Your task to perform on an android device: snooze an email in the gmail app Image 0: 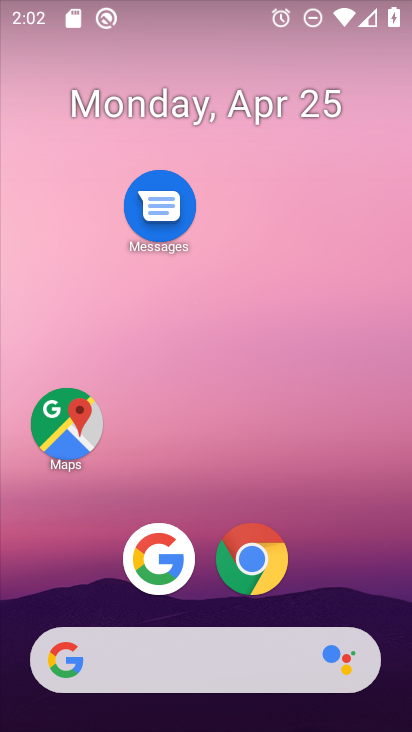
Step 0: drag from (215, 504) to (193, 68)
Your task to perform on an android device: snooze an email in the gmail app Image 1: 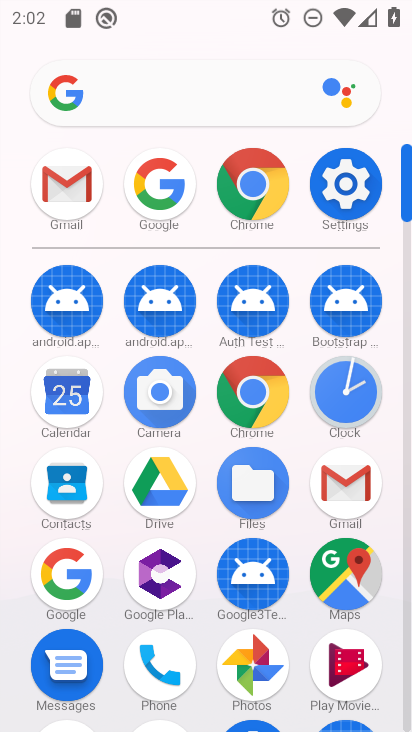
Step 1: click (71, 184)
Your task to perform on an android device: snooze an email in the gmail app Image 2: 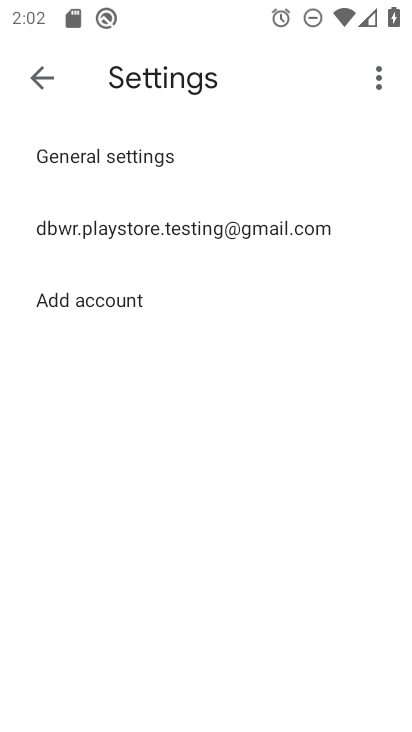
Step 2: press back button
Your task to perform on an android device: snooze an email in the gmail app Image 3: 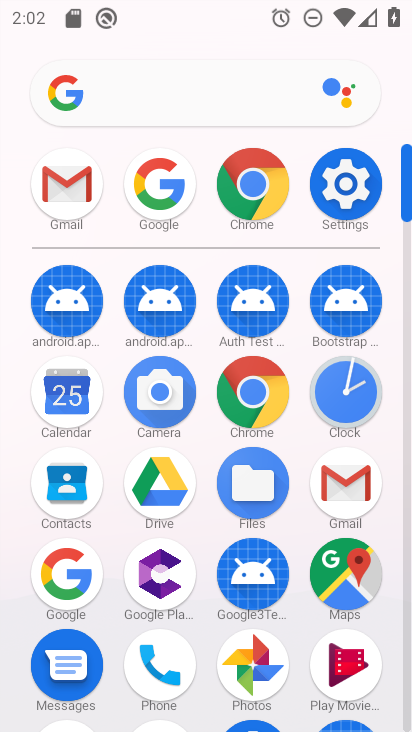
Step 3: click (59, 184)
Your task to perform on an android device: snooze an email in the gmail app Image 4: 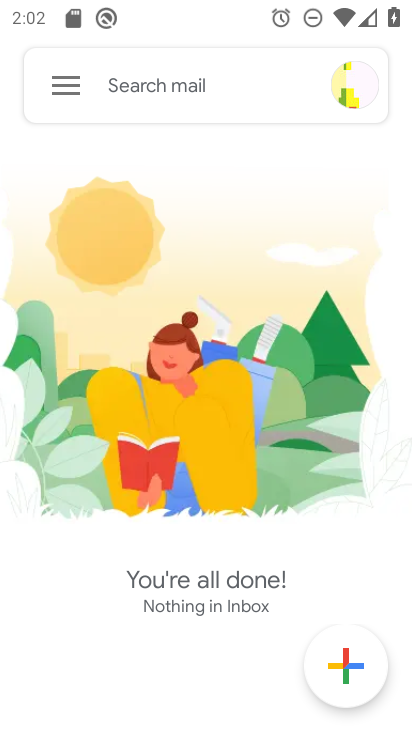
Step 4: click (62, 93)
Your task to perform on an android device: snooze an email in the gmail app Image 5: 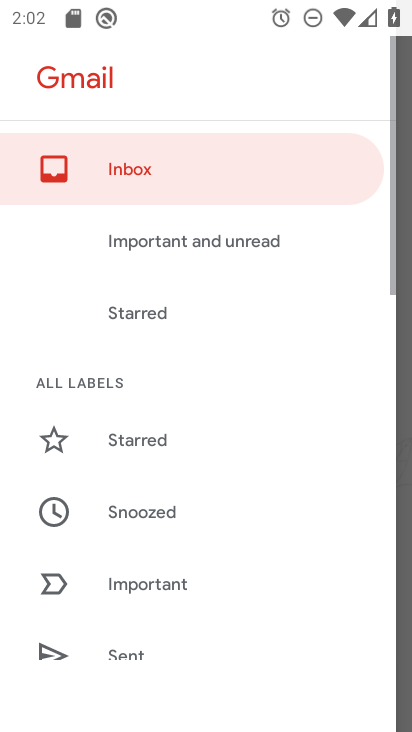
Step 5: drag from (197, 580) to (215, 192)
Your task to perform on an android device: snooze an email in the gmail app Image 6: 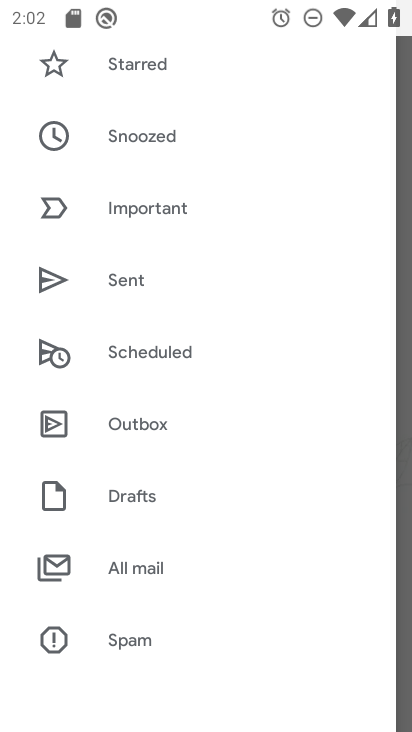
Step 6: click (140, 569)
Your task to perform on an android device: snooze an email in the gmail app Image 7: 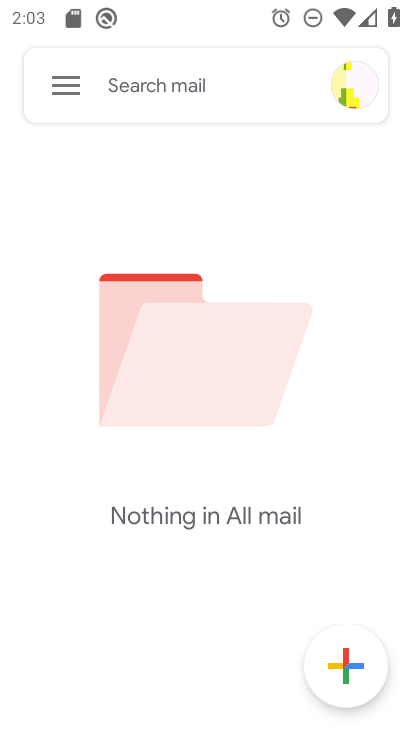
Step 7: task complete